Your task to perform on an android device: Find coffee shops on Maps Image 0: 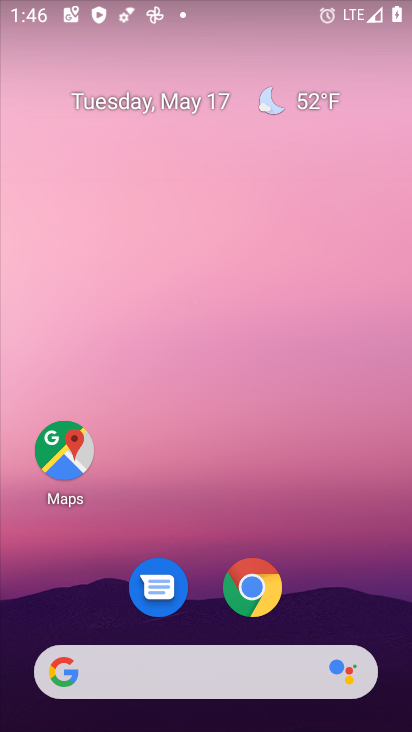
Step 0: drag from (383, 582) to (301, 249)
Your task to perform on an android device: Find coffee shops on Maps Image 1: 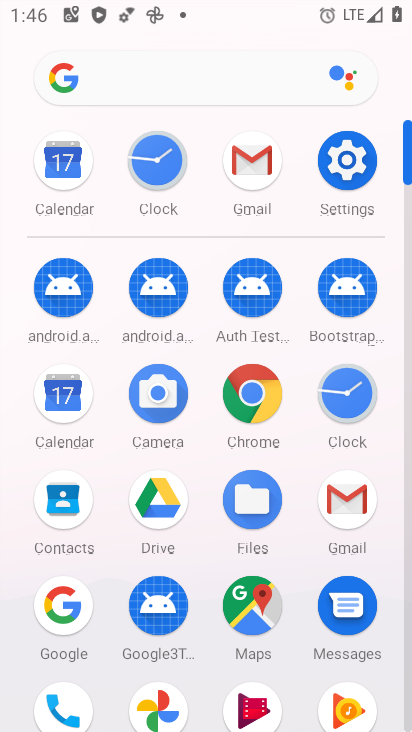
Step 1: click (260, 610)
Your task to perform on an android device: Find coffee shops on Maps Image 2: 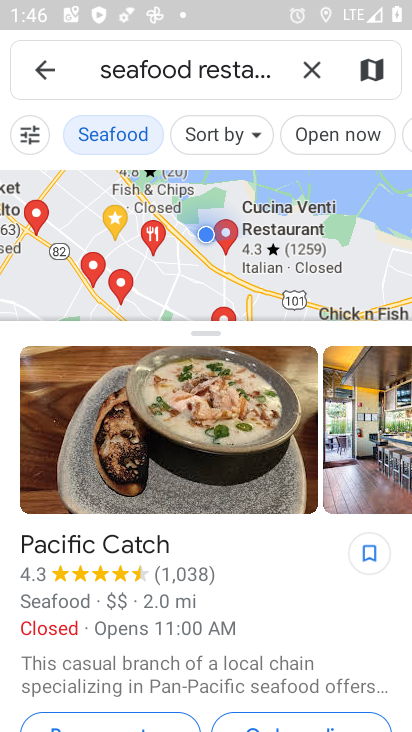
Step 2: click (320, 73)
Your task to perform on an android device: Find coffee shops on Maps Image 3: 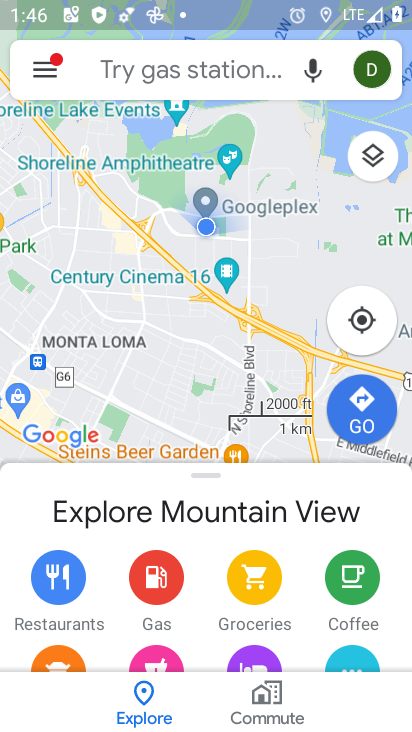
Step 3: click (249, 81)
Your task to perform on an android device: Find coffee shops on Maps Image 4: 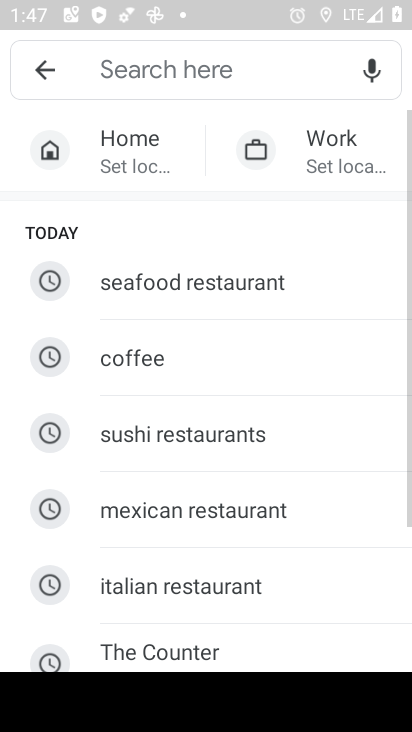
Step 4: click (281, 362)
Your task to perform on an android device: Find coffee shops on Maps Image 5: 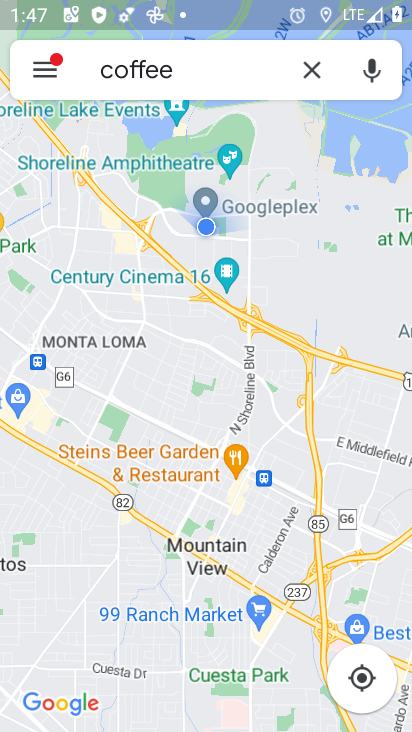
Step 5: task complete